Your task to perform on an android device: change the clock style Image 0: 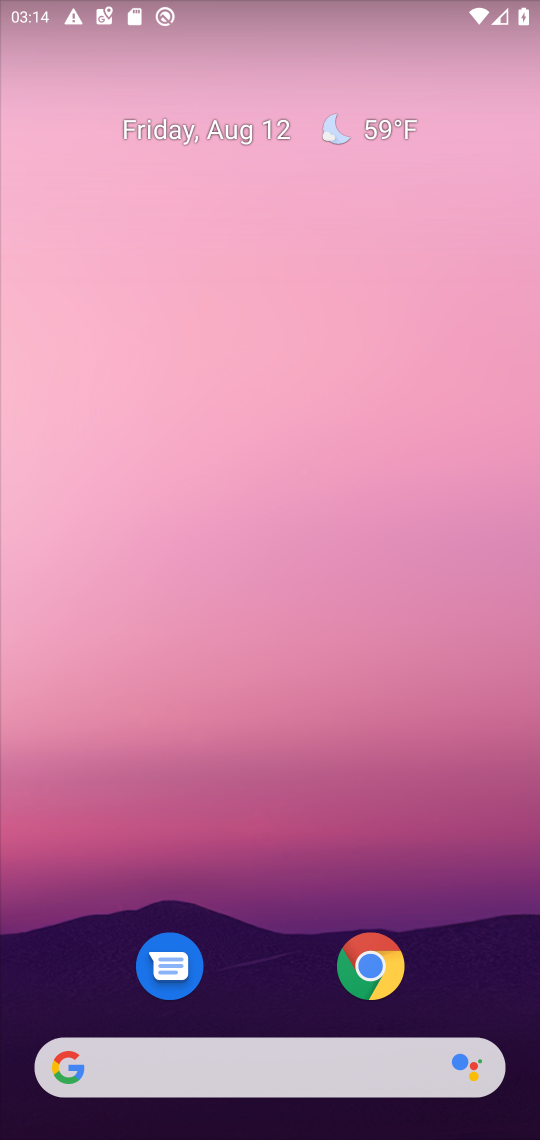
Step 0: drag from (288, 831) to (355, 3)
Your task to perform on an android device: change the clock style Image 1: 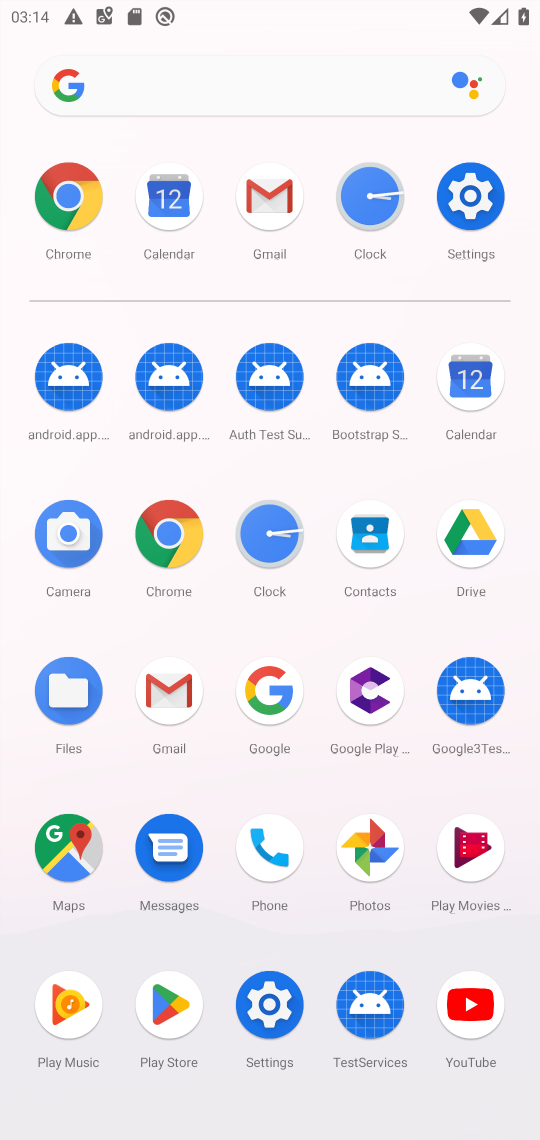
Step 1: click (269, 529)
Your task to perform on an android device: change the clock style Image 2: 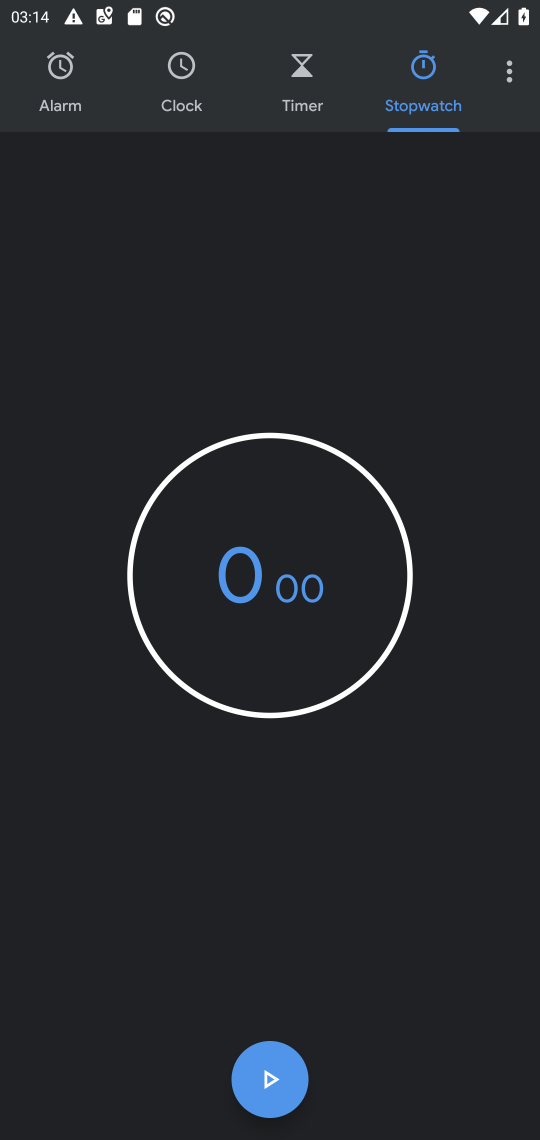
Step 2: click (518, 60)
Your task to perform on an android device: change the clock style Image 3: 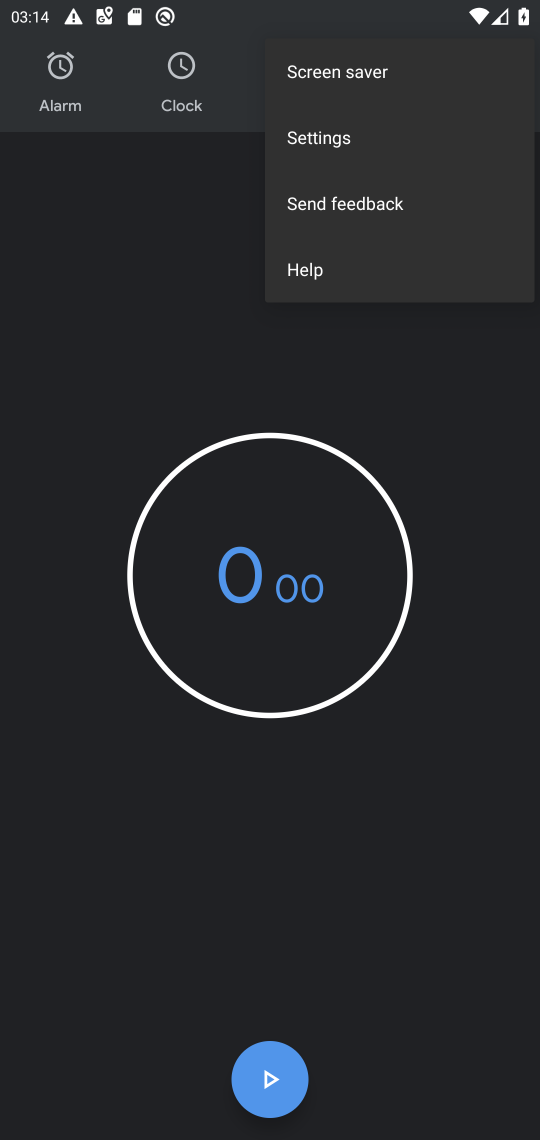
Step 3: click (319, 139)
Your task to perform on an android device: change the clock style Image 4: 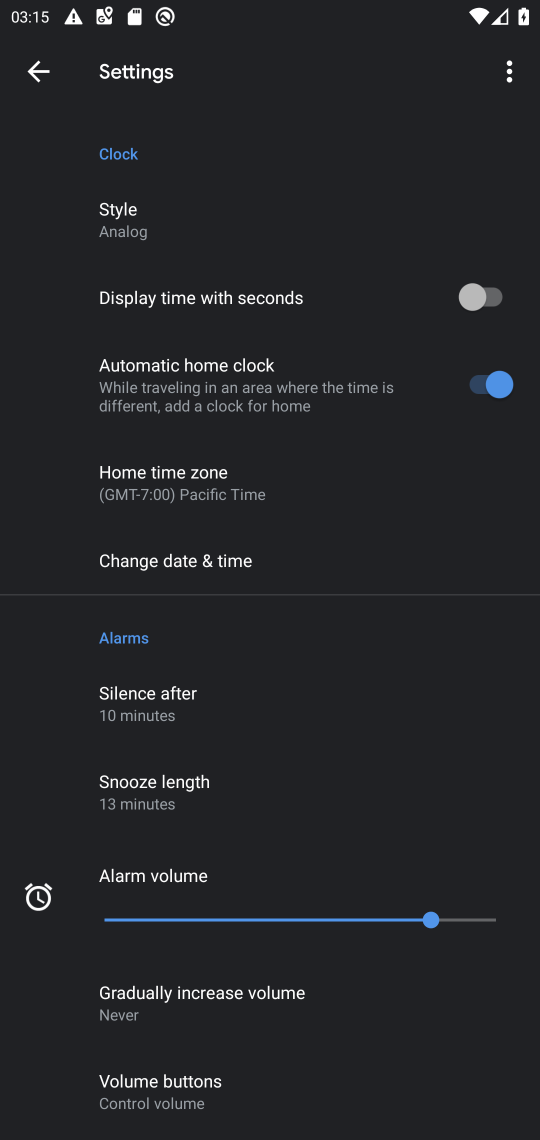
Step 4: click (119, 216)
Your task to perform on an android device: change the clock style Image 5: 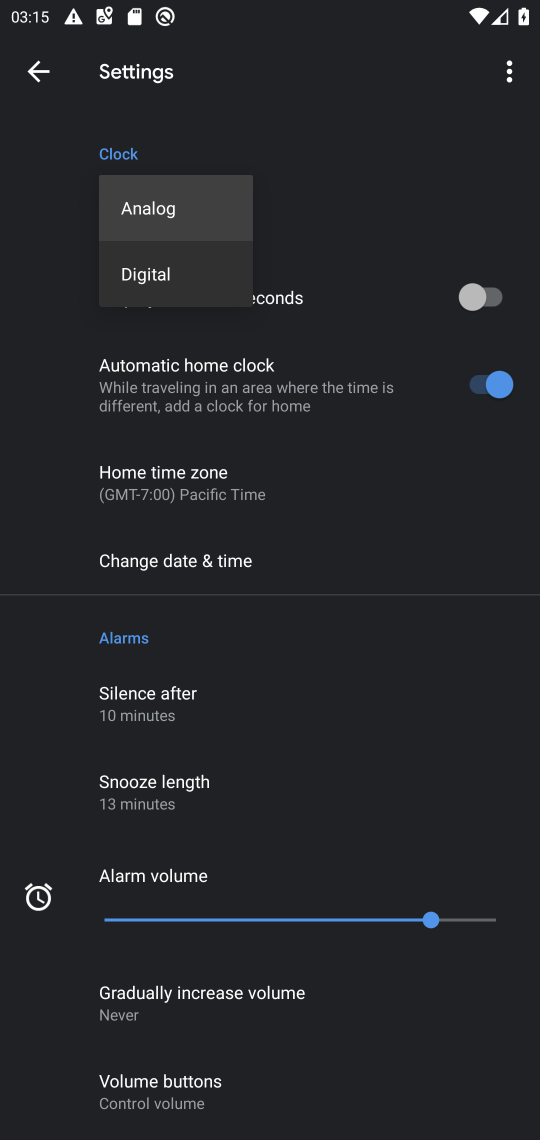
Step 5: click (209, 283)
Your task to perform on an android device: change the clock style Image 6: 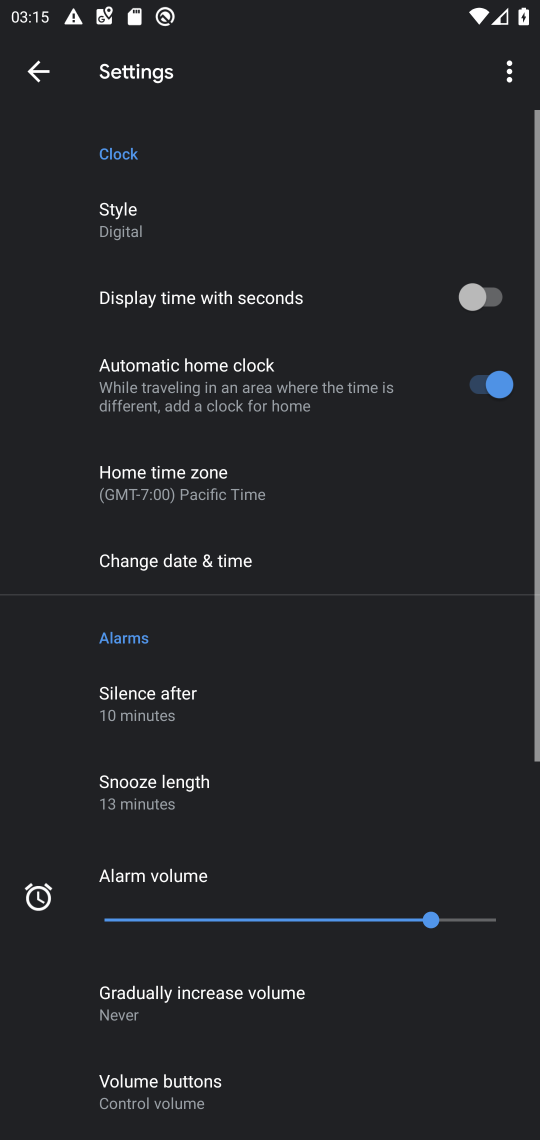
Step 6: task complete